Your task to perform on an android device: What's the weather going to be tomorrow? Image 0: 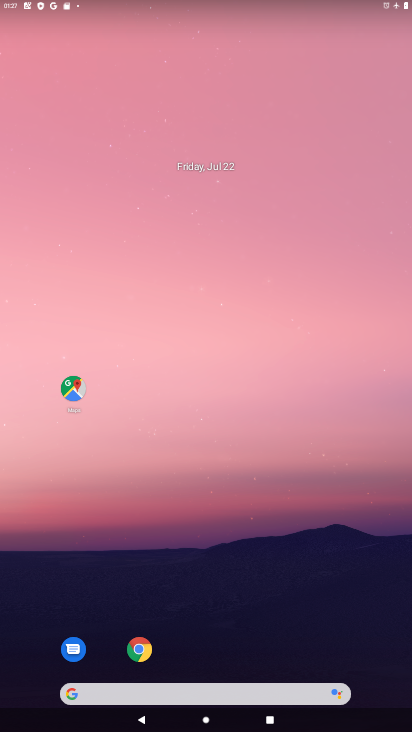
Step 0: drag from (316, 604) to (192, 76)
Your task to perform on an android device: What's the weather going to be tomorrow? Image 1: 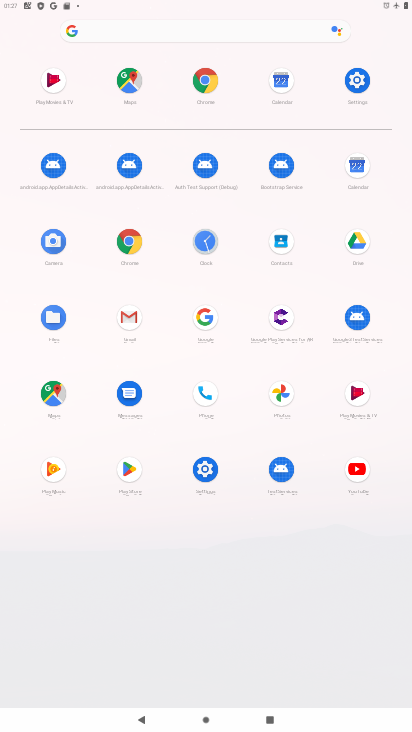
Step 1: click (209, 74)
Your task to perform on an android device: What's the weather going to be tomorrow? Image 2: 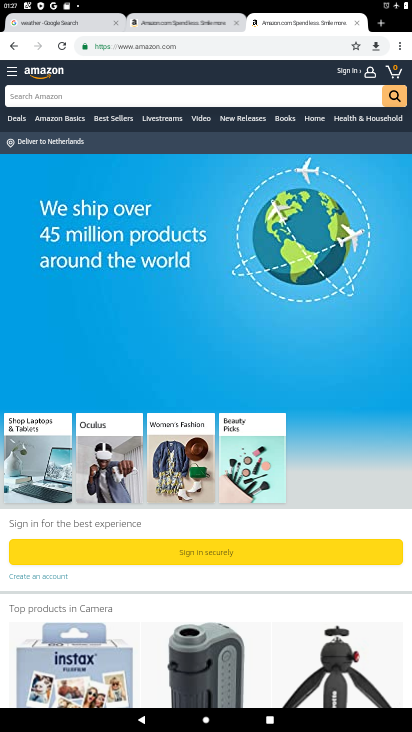
Step 2: click (219, 44)
Your task to perform on an android device: What's the weather going to be tomorrow? Image 3: 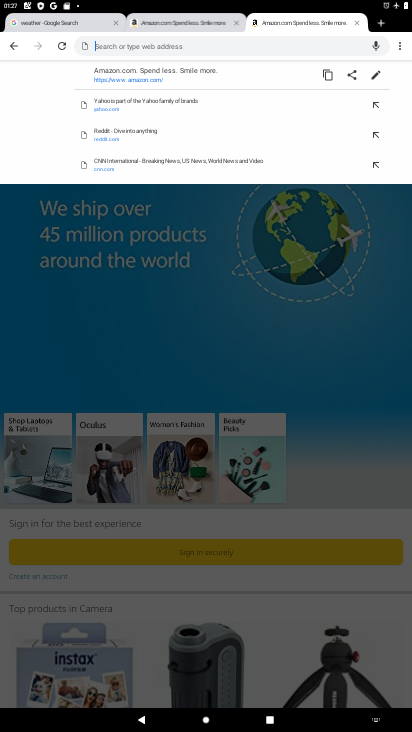
Step 3: type "weather"
Your task to perform on an android device: What's the weather going to be tomorrow? Image 4: 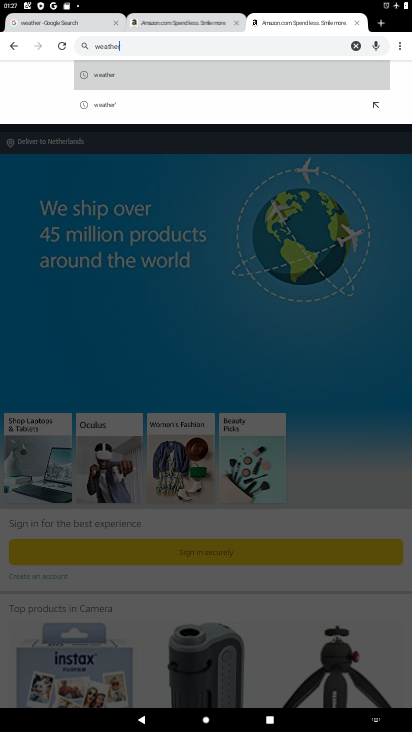
Step 4: click (143, 68)
Your task to perform on an android device: What's the weather going to be tomorrow? Image 5: 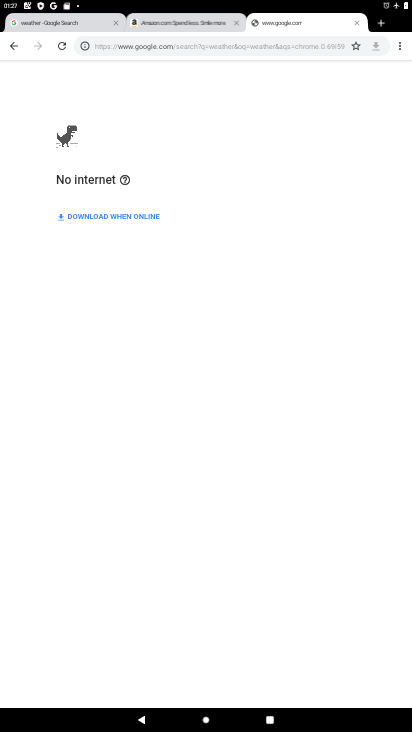
Step 5: task complete